Your task to perform on an android device: Open Chrome and go to settings Image 0: 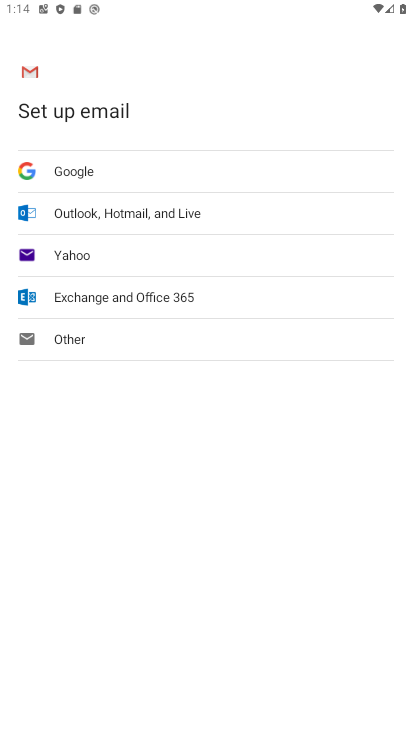
Step 0: press home button
Your task to perform on an android device: Open Chrome and go to settings Image 1: 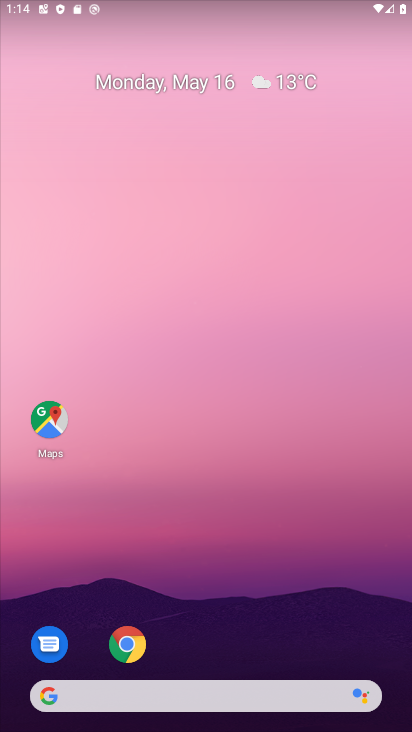
Step 1: drag from (228, 635) to (297, 145)
Your task to perform on an android device: Open Chrome and go to settings Image 2: 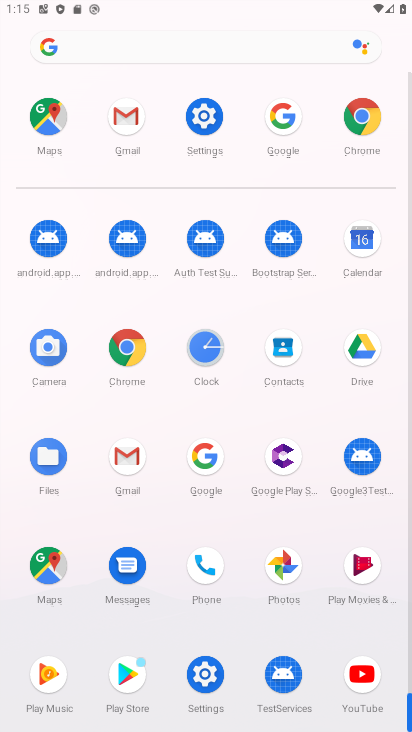
Step 2: click (376, 134)
Your task to perform on an android device: Open Chrome and go to settings Image 3: 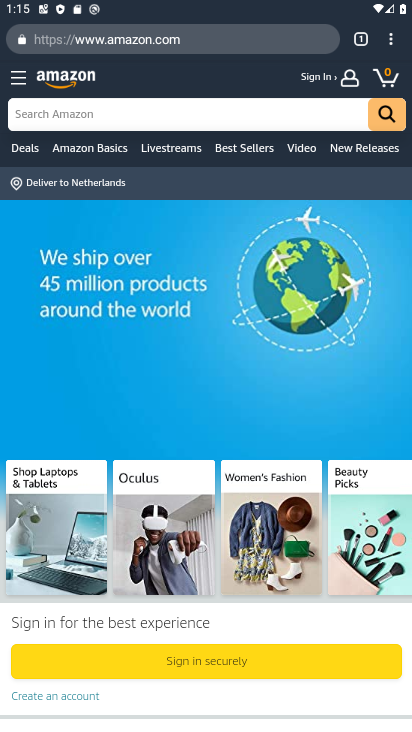
Step 3: click (390, 45)
Your task to perform on an android device: Open Chrome and go to settings Image 4: 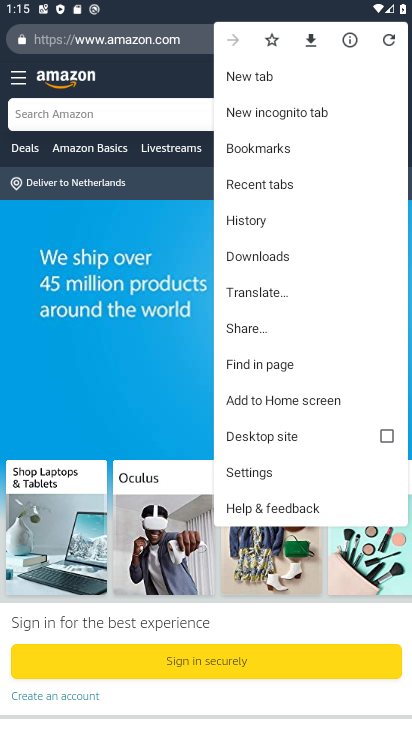
Step 4: drag from (310, 437) to (347, 129)
Your task to perform on an android device: Open Chrome and go to settings Image 5: 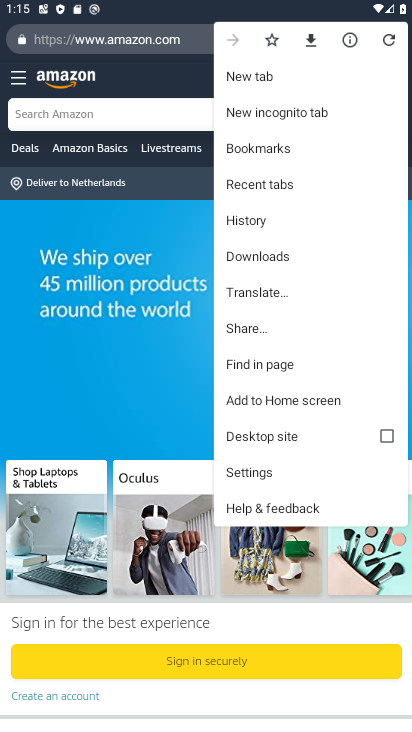
Step 5: click (281, 473)
Your task to perform on an android device: Open Chrome and go to settings Image 6: 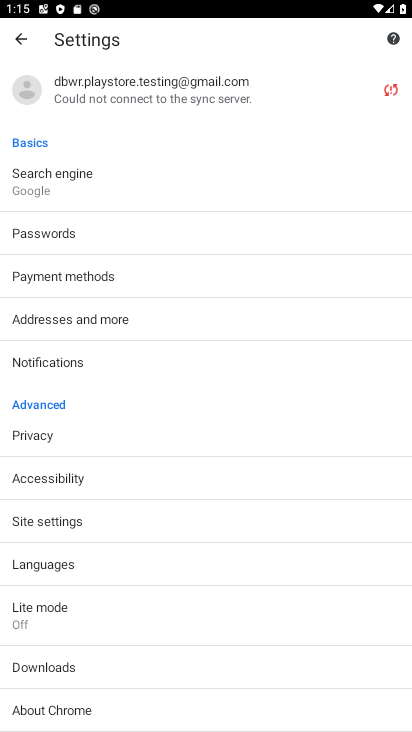
Step 6: task complete